Your task to perform on an android device: turn on data saver in the chrome app Image 0: 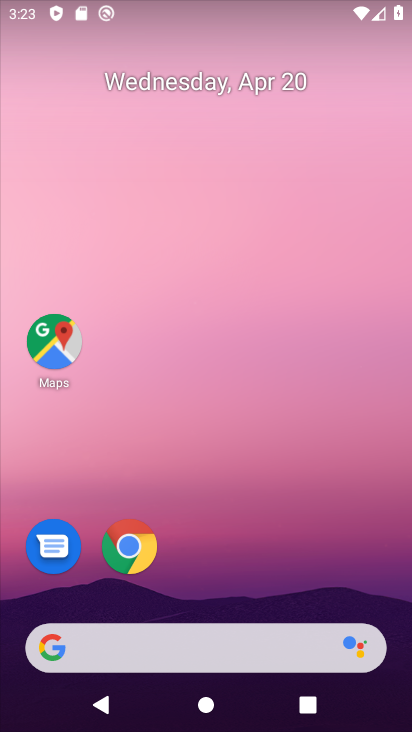
Step 0: drag from (182, 518) to (262, 63)
Your task to perform on an android device: turn on data saver in the chrome app Image 1: 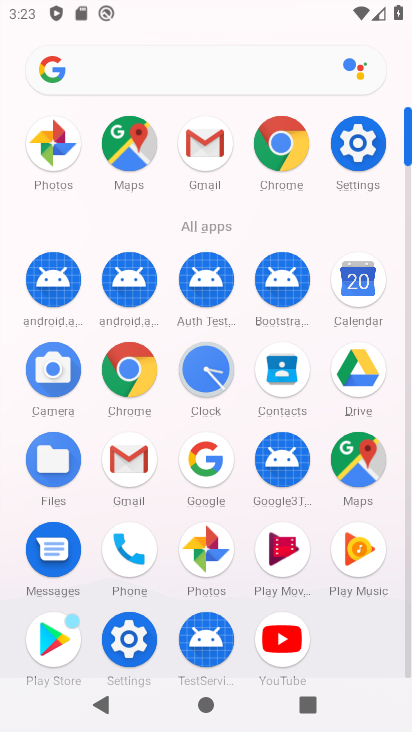
Step 1: click (284, 170)
Your task to perform on an android device: turn on data saver in the chrome app Image 2: 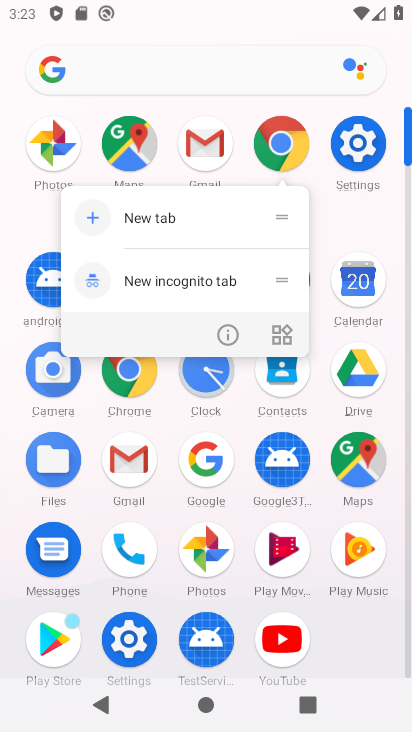
Step 2: click (285, 143)
Your task to perform on an android device: turn on data saver in the chrome app Image 3: 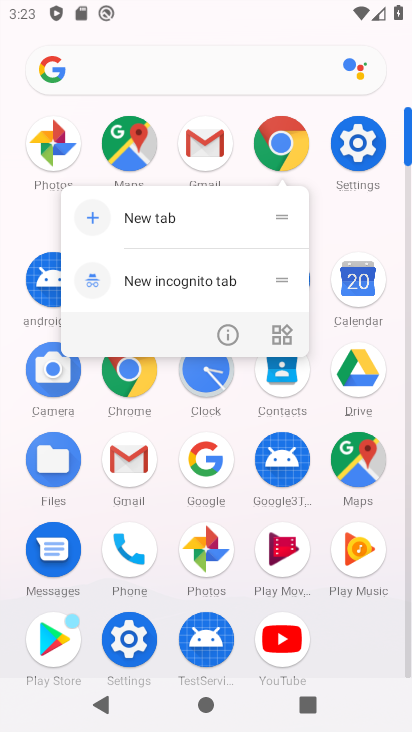
Step 3: click (285, 139)
Your task to perform on an android device: turn on data saver in the chrome app Image 4: 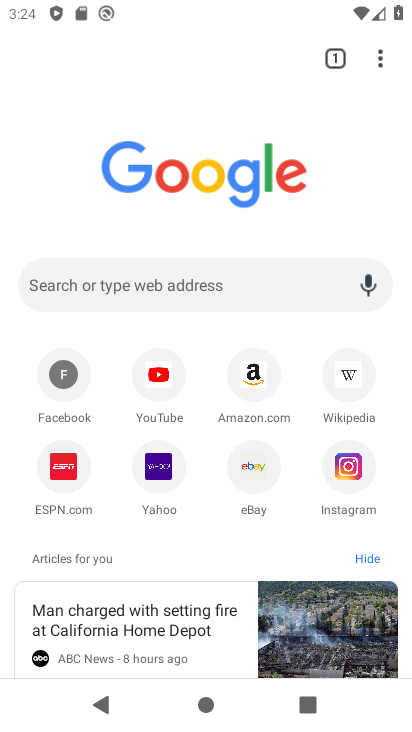
Step 4: drag from (381, 65) to (277, 487)
Your task to perform on an android device: turn on data saver in the chrome app Image 5: 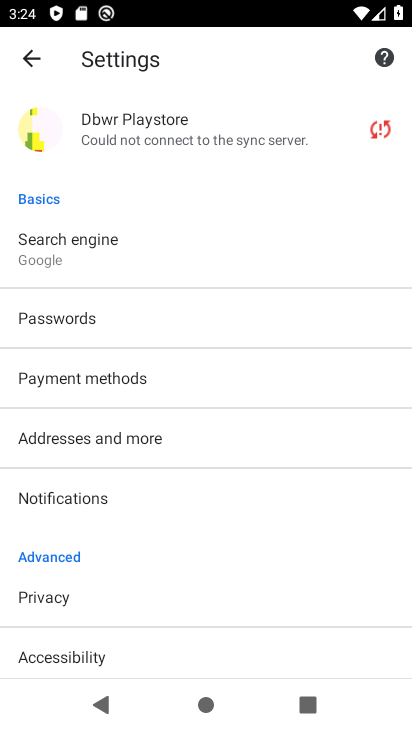
Step 5: drag from (193, 617) to (301, 186)
Your task to perform on an android device: turn on data saver in the chrome app Image 6: 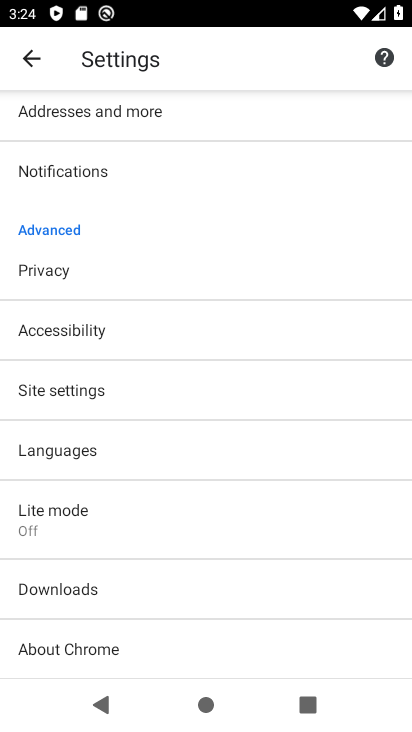
Step 6: click (119, 539)
Your task to perform on an android device: turn on data saver in the chrome app Image 7: 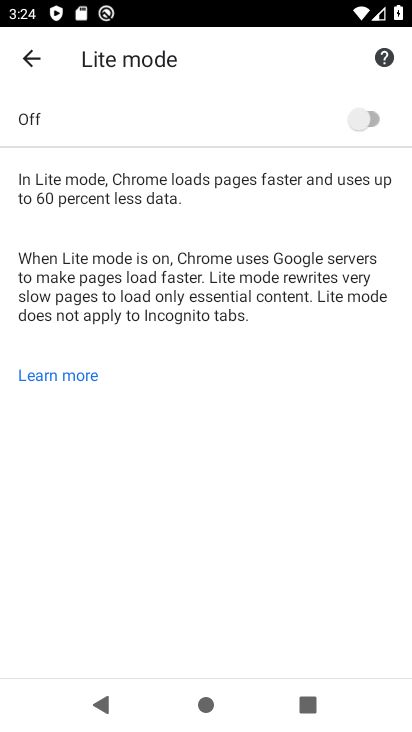
Step 7: click (377, 113)
Your task to perform on an android device: turn on data saver in the chrome app Image 8: 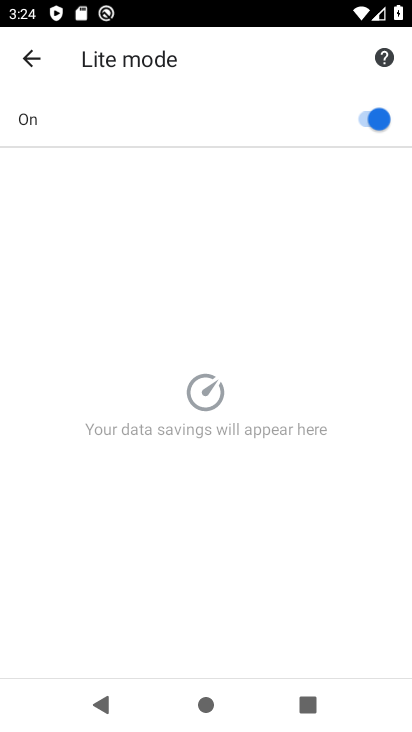
Step 8: task complete